Your task to perform on an android device: open chrome privacy settings Image 0: 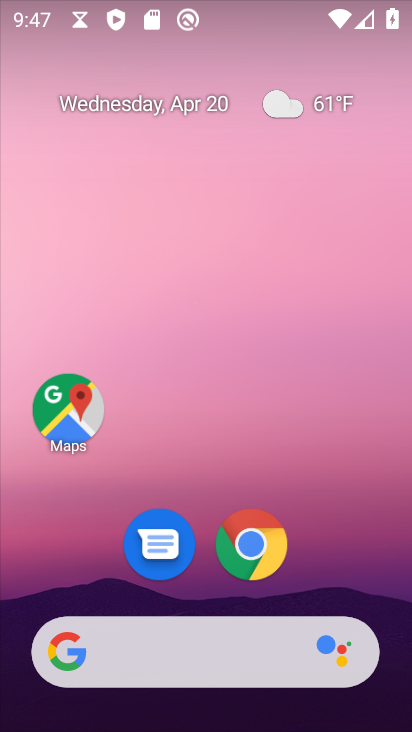
Step 0: drag from (160, 588) to (257, 65)
Your task to perform on an android device: open chrome privacy settings Image 1: 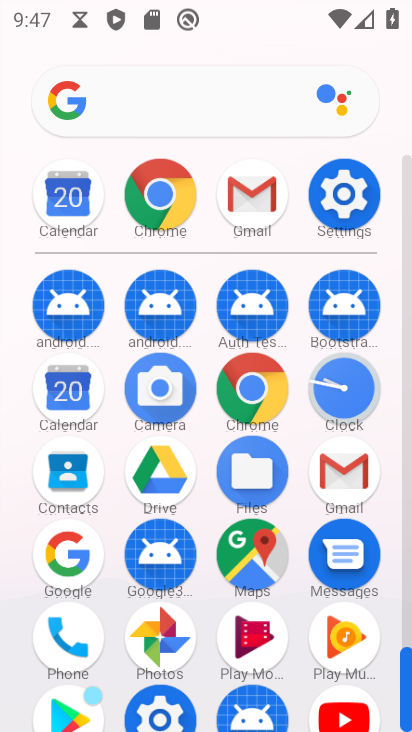
Step 1: click (167, 206)
Your task to perform on an android device: open chrome privacy settings Image 2: 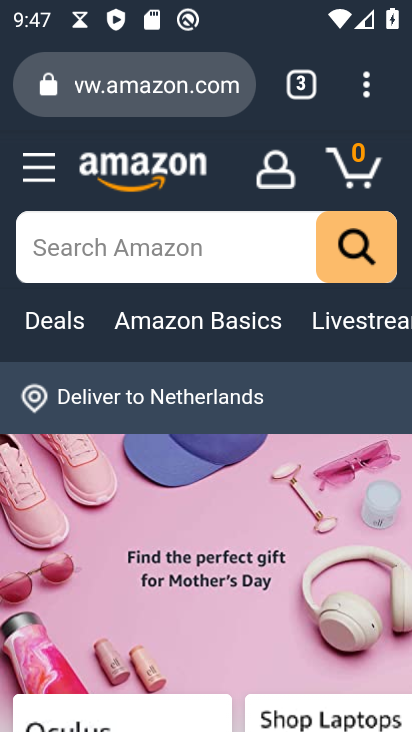
Step 2: click (361, 103)
Your task to perform on an android device: open chrome privacy settings Image 3: 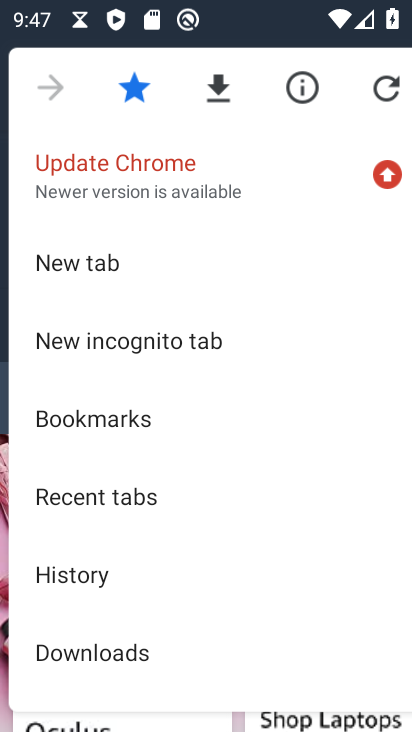
Step 3: drag from (215, 592) to (357, 166)
Your task to perform on an android device: open chrome privacy settings Image 4: 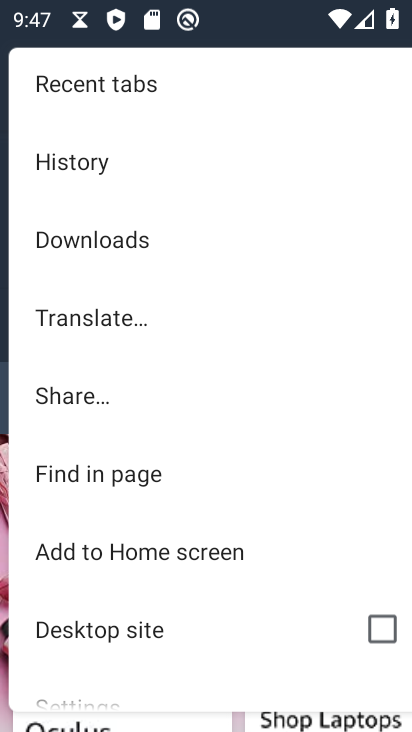
Step 4: drag from (221, 484) to (323, 186)
Your task to perform on an android device: open chrome privacy settings Image 5: 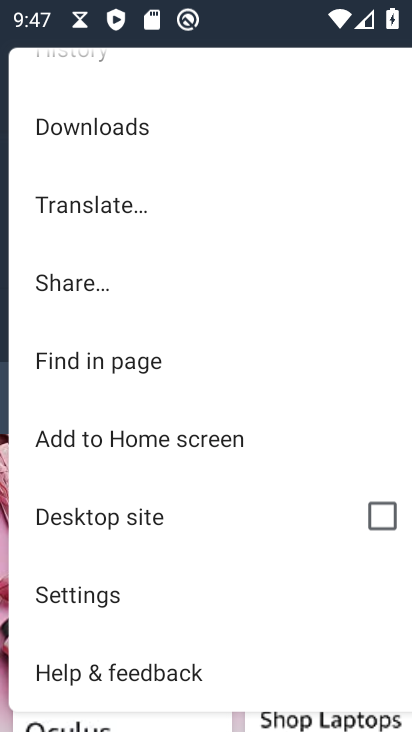
Step 5: click (113, 600)
Your task to perform on an android device: open chrome privacy settings Image 6: 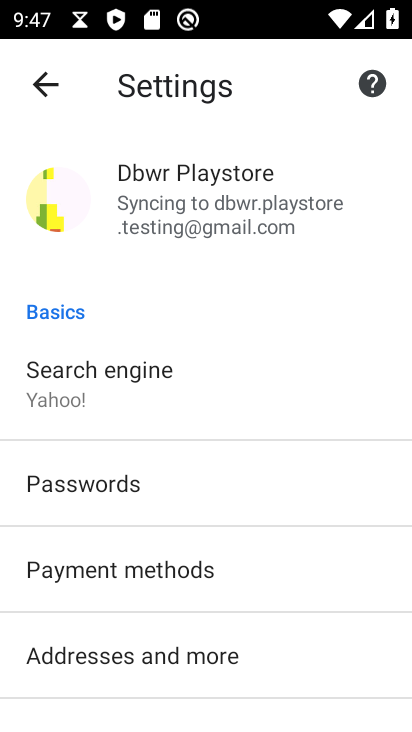
Step 6: drag from (195, 611) to (338, 167)
Your task to perform on an android device: open chrome privacy settings Image 7: 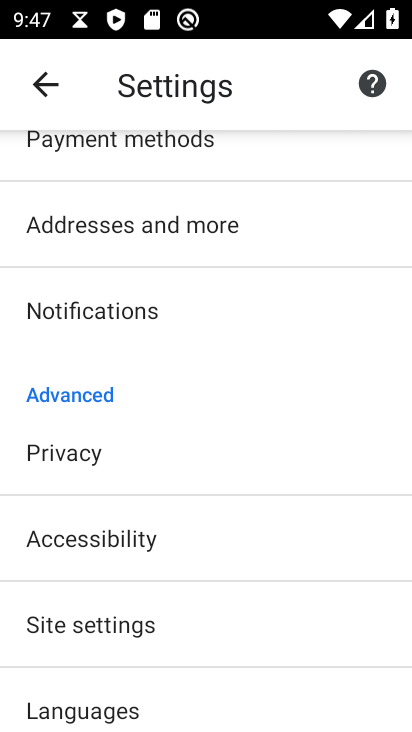
Step 7: drag from (190, 614) to (283, 308)
Your task to perform on an android device: open chrome privacy settings Image 8: 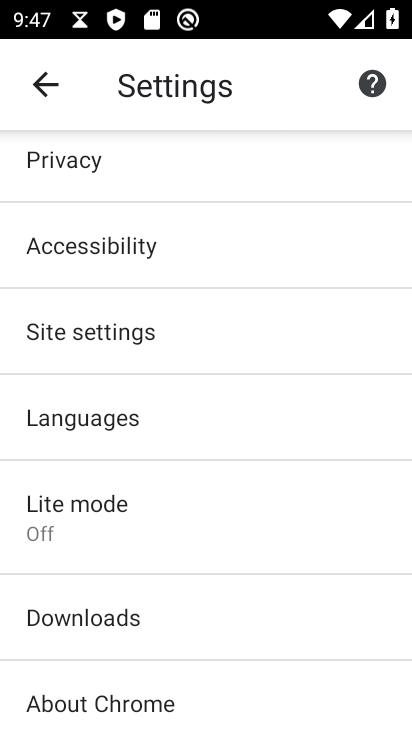
Step 8: click (52, 154)
Your task to perform on an android device: open chrome privacy settings Image 9: 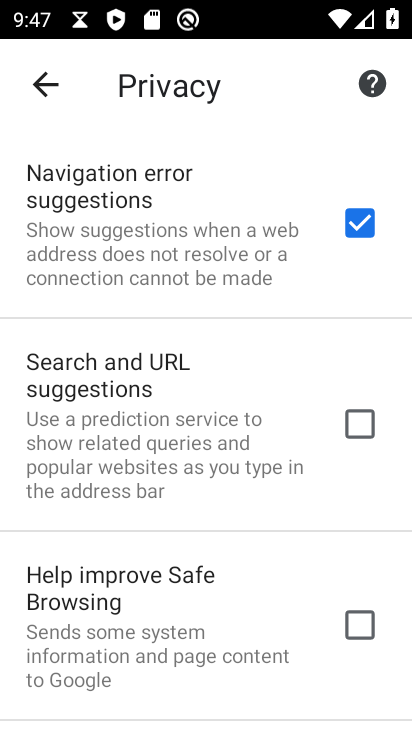
Step 9: task complete